Your task to perform on an android device: see creations saved in the google photos Image 0: 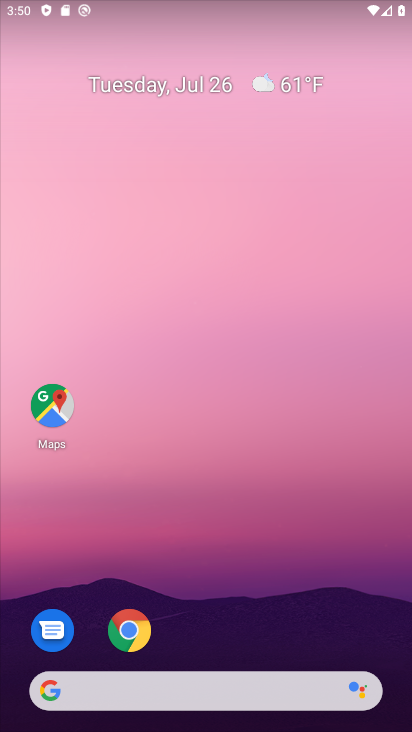
Step 0: drag from (224, 638) to (298, 177)
Your task to perform on an android device: see creations saved in the google photos Image 1: 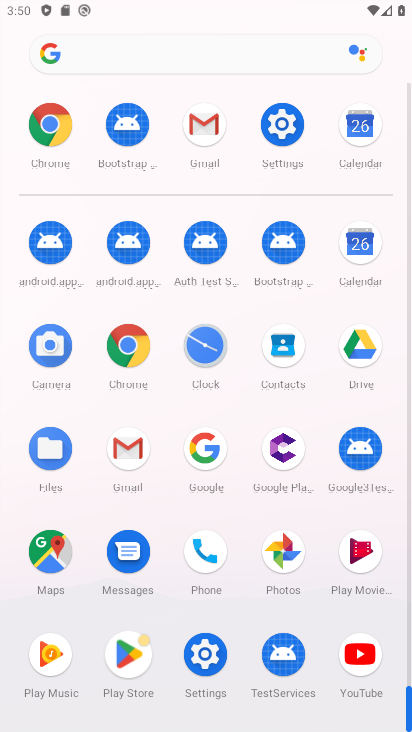
Step 1: click (287, 549)
Your task to perform on an android device: see creations saved in the google photos Image 2: 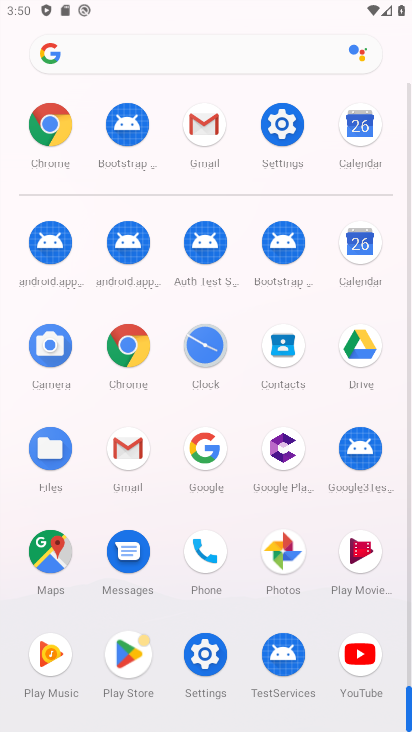
Step 2: click (284, 551)
Your task to perform on an android device: see creations saved in the google photos Image 3: 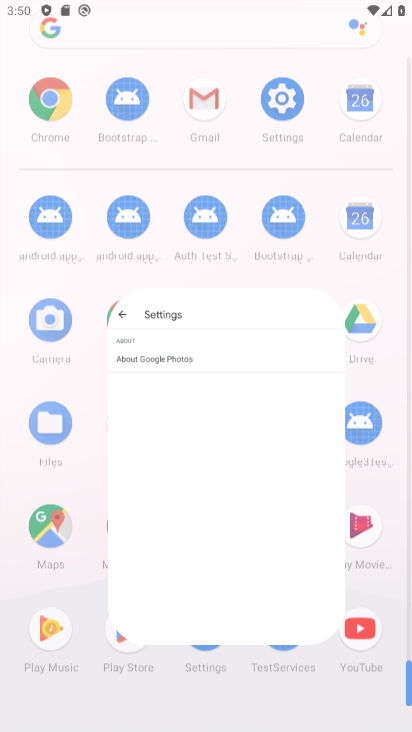
Step 3: click (284, 551)
Your task to perform on an android device: see creations saved in the google photos Image 4: 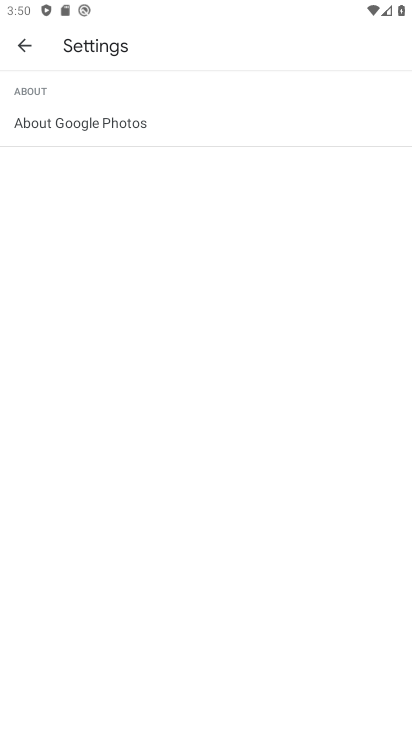
Step 4: click (21, 46)
Your task to perform on an android device: see creations saved in the google photos Image 5: 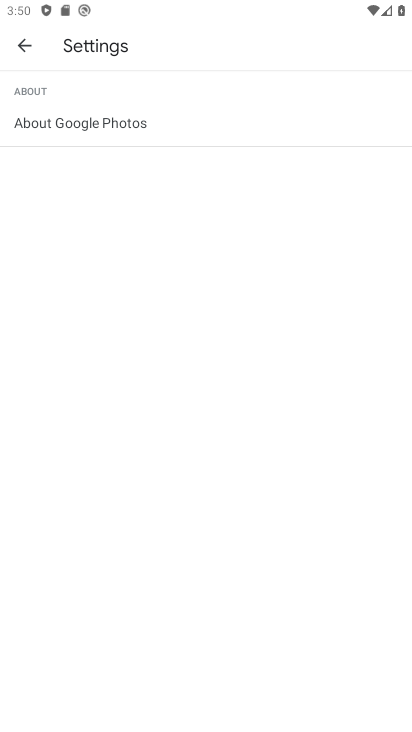
Step 5: click (21, 46)
Your task to perform on an android device: see creations saved in the google photos Image 6: 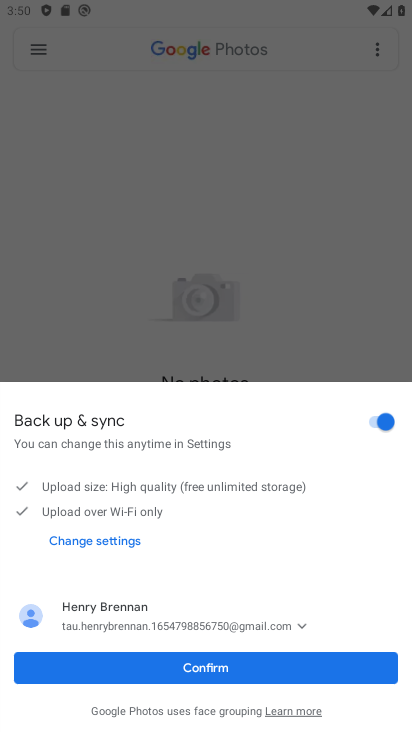
Step 6: click (220, 660)
Your task to perform on an android device: see creations saved in the google photos Image 7: 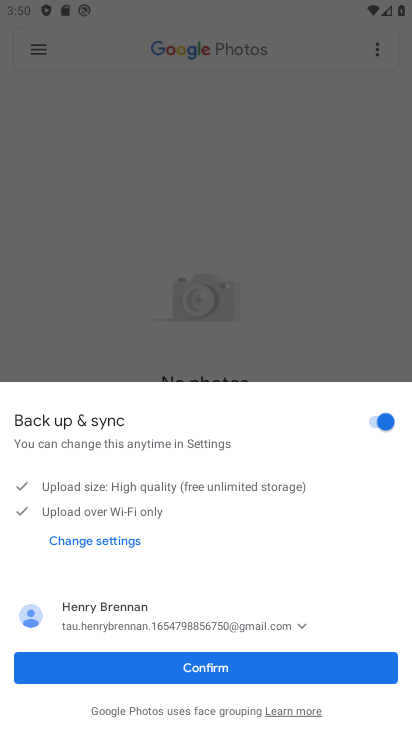
Step 7: click (235, 670)
Your task to perform on an android device: see creations saved in the google photos Image 8: 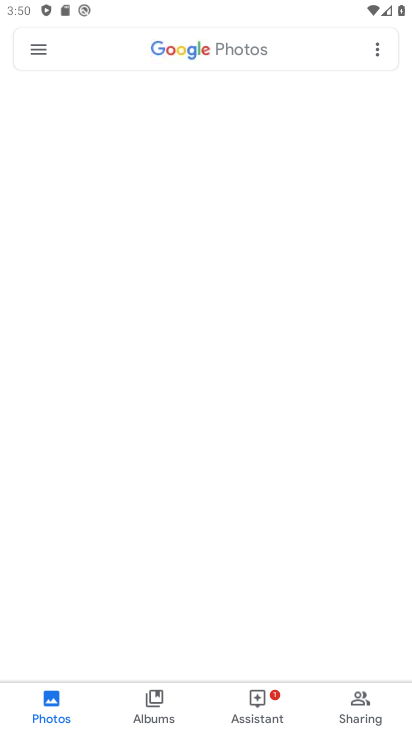
Step 8: click (238, 670)
Your task to perform on an android device: see creations saved in the google photos Image 9: 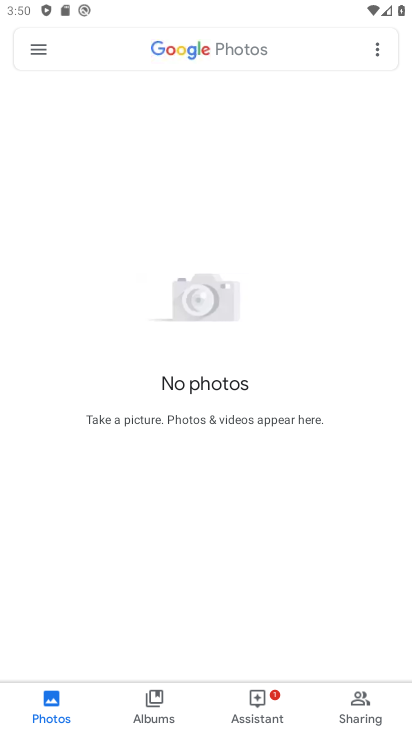
Step 9: click (246, 671)
Your task to perform on an android device: see creations saved in the google photos Image 10: 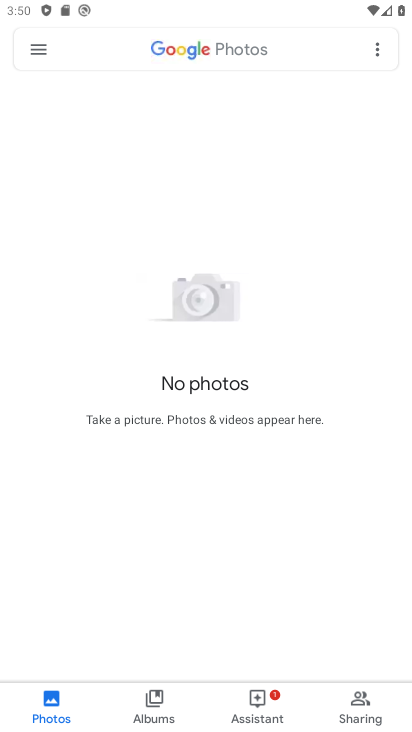
Step 10: click (246, 671)
Your task to perform on an android device: see creations saved in the google photos Image 11: 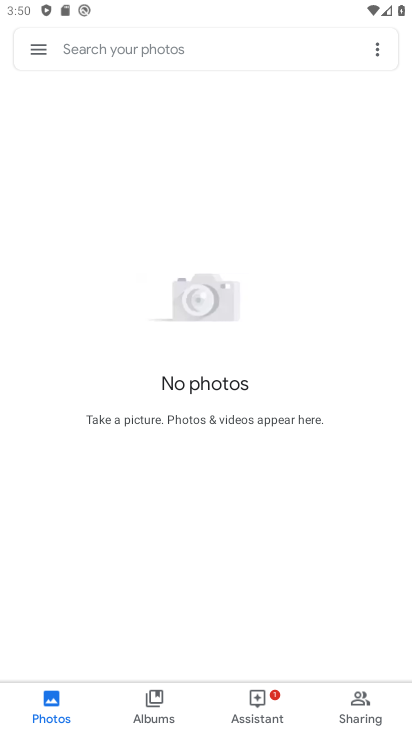
Step 11: click (158, 712)
Your task to perform on an android device: see creations saved in the google photos Image 12: 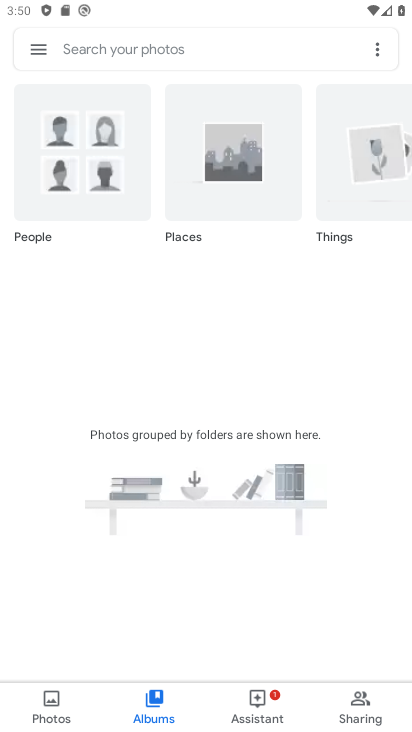
Step 12: click (50, 711)
Your task to perform on an android device: see creations saved in the google photos Image 13: 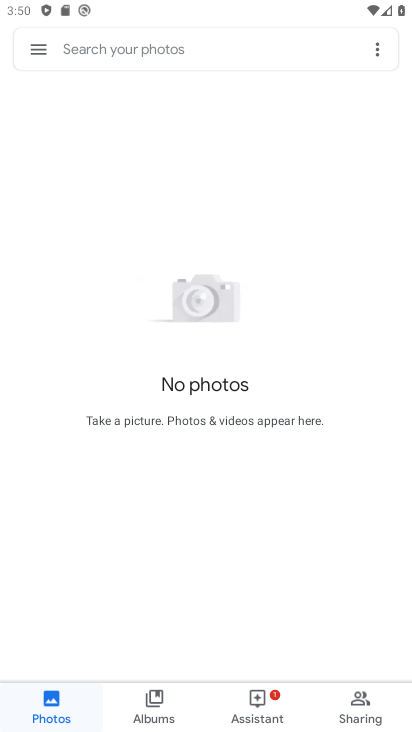
Step 13: click (48, 712)
Your task to perform on an android device: see creations saved in the google photos Image 14: 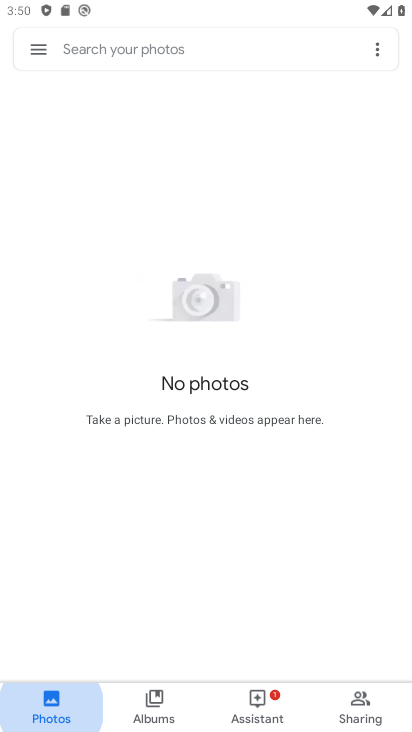
Step 14: click (48, 714)
Your task to perform on an android device: see creations saved in the google photos Image 15: 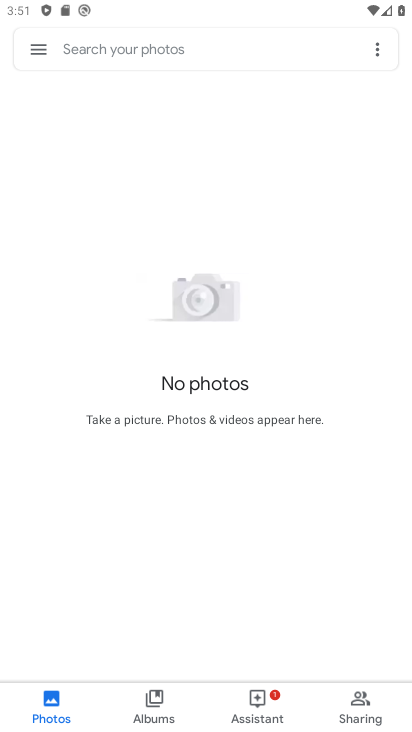
Step 15: task complete